Your task to perform on an android device: open app "TextNow: Call + Text Unlimited" (install if not already installed) Image 0: 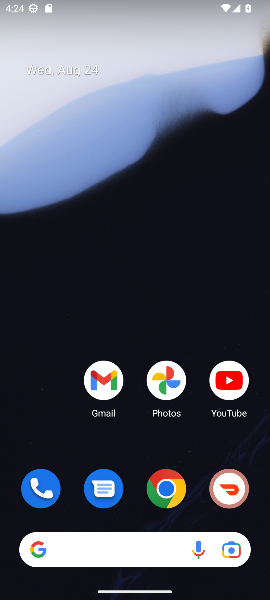
Step 0: drag from (142, 511) to (125, 65)
Your task to perform on an android device: open app "TextNow: Call + Text Unlimited" (install if not already installed) Image 1: 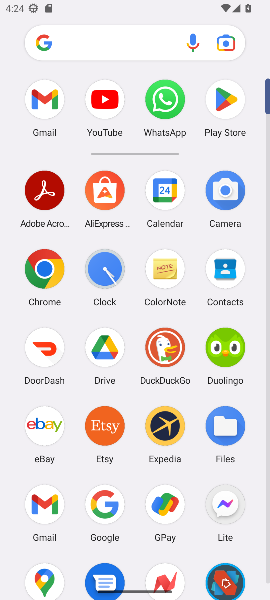
Step 1: click (222, 94)
Your task to perform on an android device: open app "TextNow: Call + Text Unlimited" (install if not already installed) Image 2: 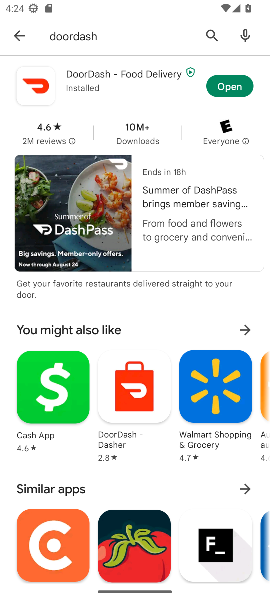
Step 2: click (211, 42)
Your task to perform on an android device: open app "TextNow: Call + Text Unlimited" (install if not already installed) Image 3: 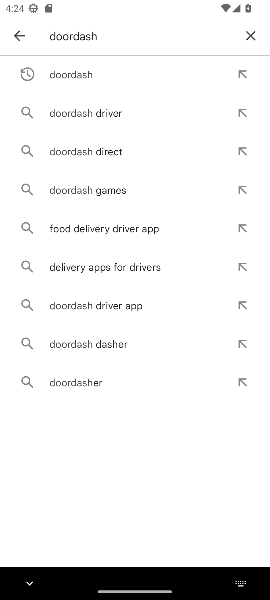
Step 3: click (245, 42)
Your task to perform on an android device: open app "TextNow: Call + Text Unlimited" (install if not already installed) Image 4: 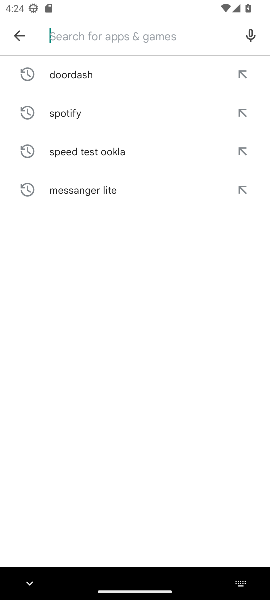
Step 4: type "textnow"
Your task to perform on an android device: open app "TextNow: Call + Text Unlimited" (install if not already installed) Image 5: 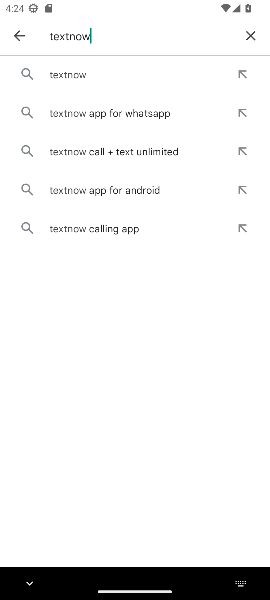
Step 5: click (131, 76)
Your task to perform on an android device: open app "TextNow: Call + Text Unlimited" (install if not already installed) Image 6: 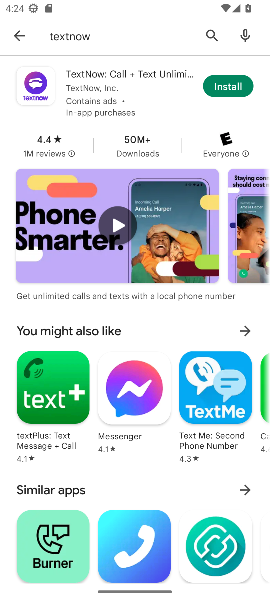
Step 6: click (222, 82)
Your task to perform on an android device: open app "TextNow: Call + Text Unlimited" (install if not already installed) Image 7: 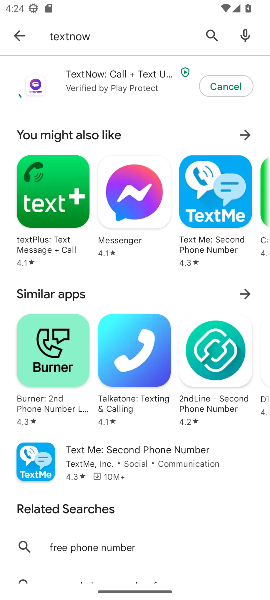
Step 7: task complete